Your task to perform on an android device: Show me recent news Image 0: 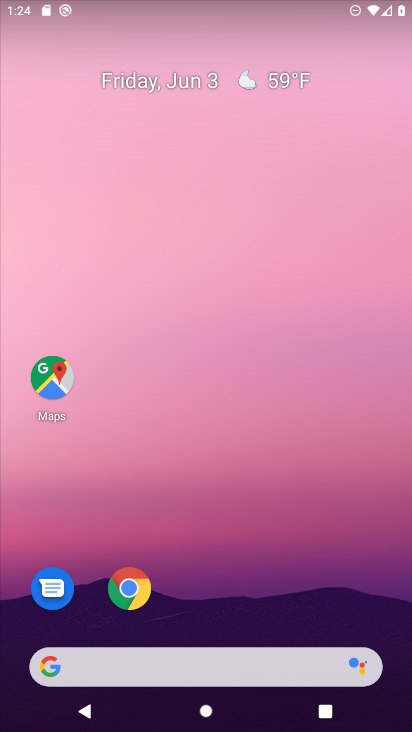
Step 0: drag from (260, 591) to (214, 45)
Your task to perform on an android device: Show me recent news Image 1: 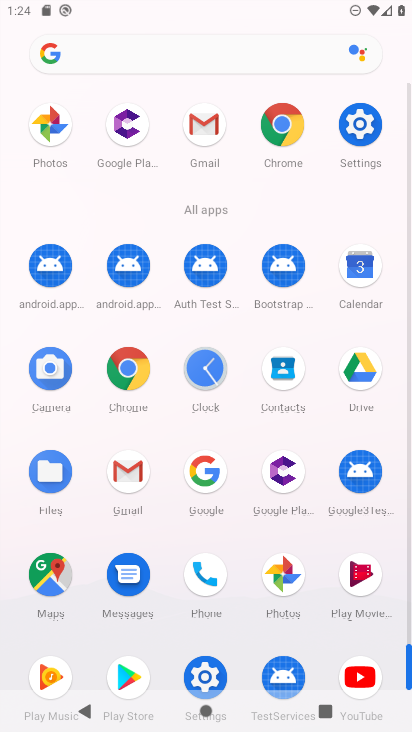
Step 1: click (131, 364)
Your task to perform on an android device: Show me recent news Image 2: 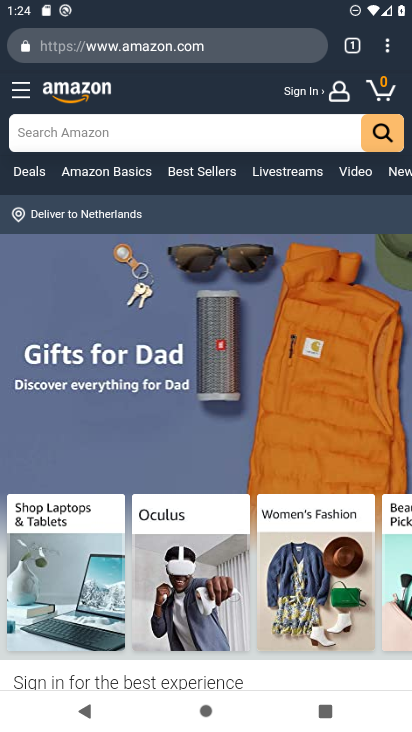
Step 2: click (130, 40)
Your task to perform on an android device: Show me recent news Image 3: 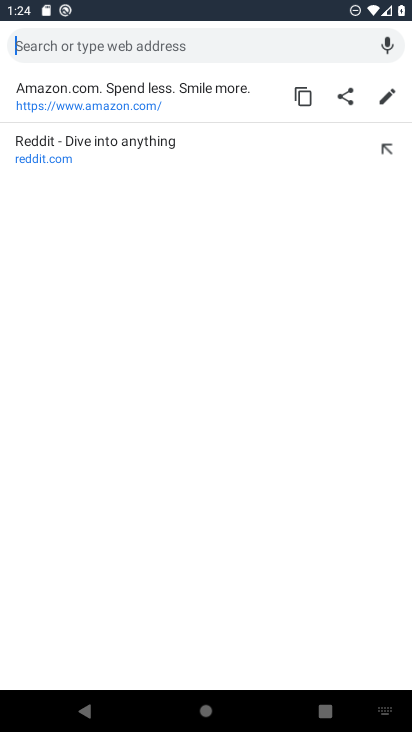
Step 3: type "Show me recent news"
Your task to perform on an android device: Show me recent news Image 4: 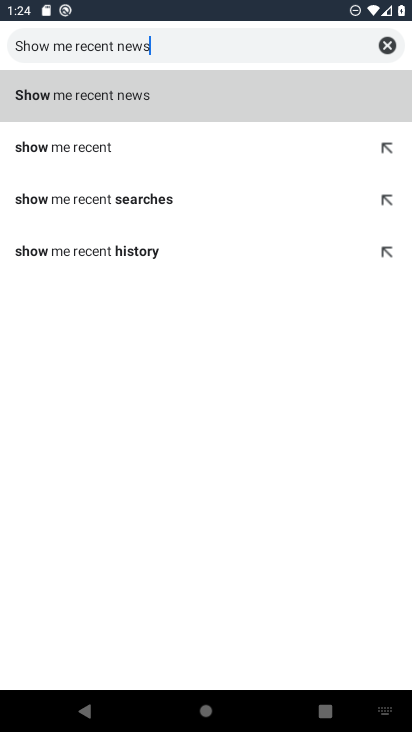
Step 4: type ""
Your task to perform on an android device: Show me recent news Image 5: 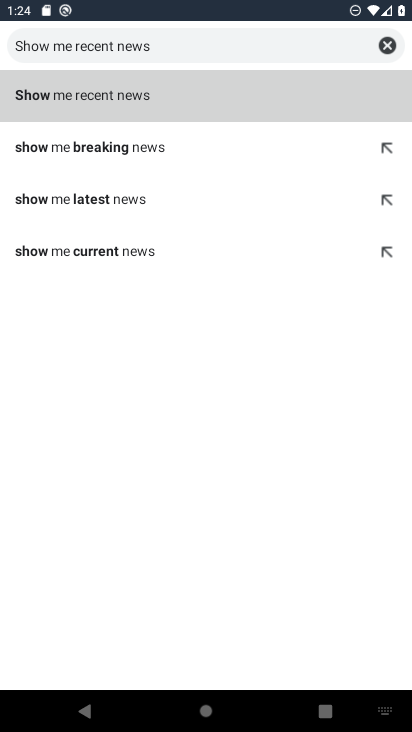
Step 5: click (87, 106)
Your task to perform on an android device: Show me recent news Image 6: 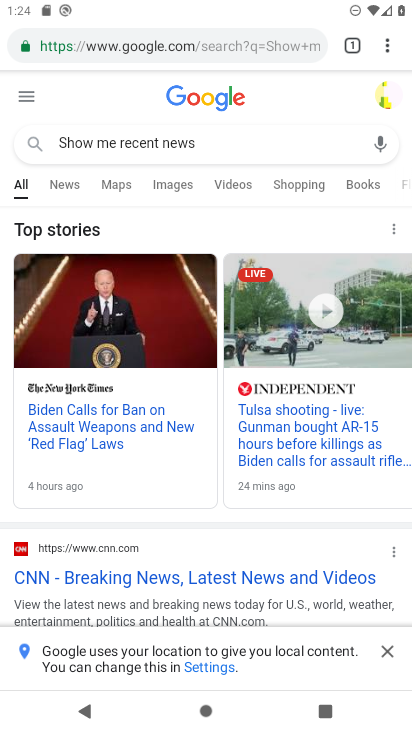
Step 6: task complete